Your task to perform on an android device: Open settings on Google Maps Image 0: 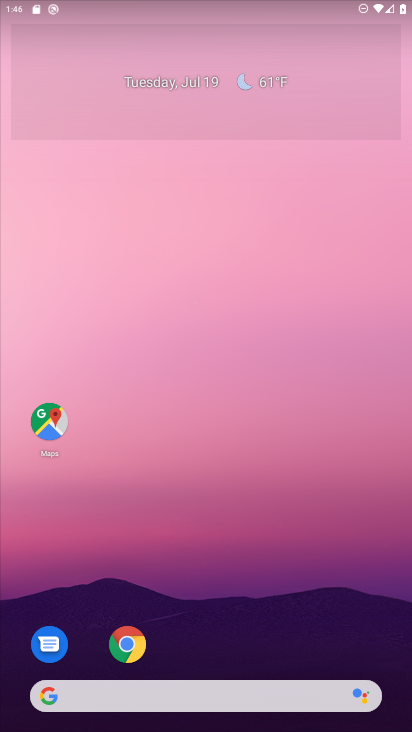
Step 0: click (30, 415)
Your task to perform on an android device: Open settings on Google Maps Image 1: 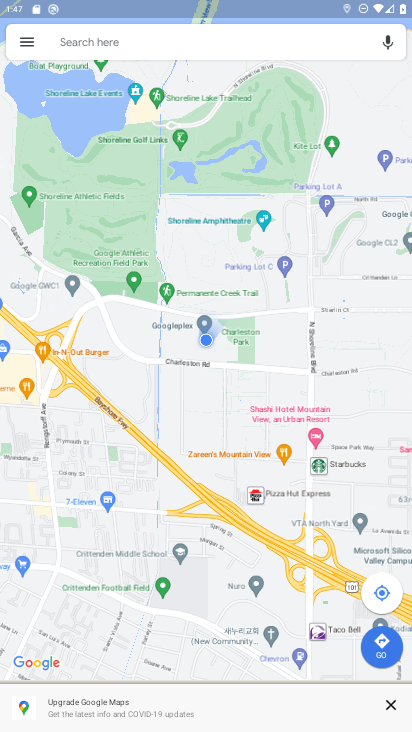
Step 1: task complete